Your task to perform on an android device: Find coffee shops on Maps Image 0: 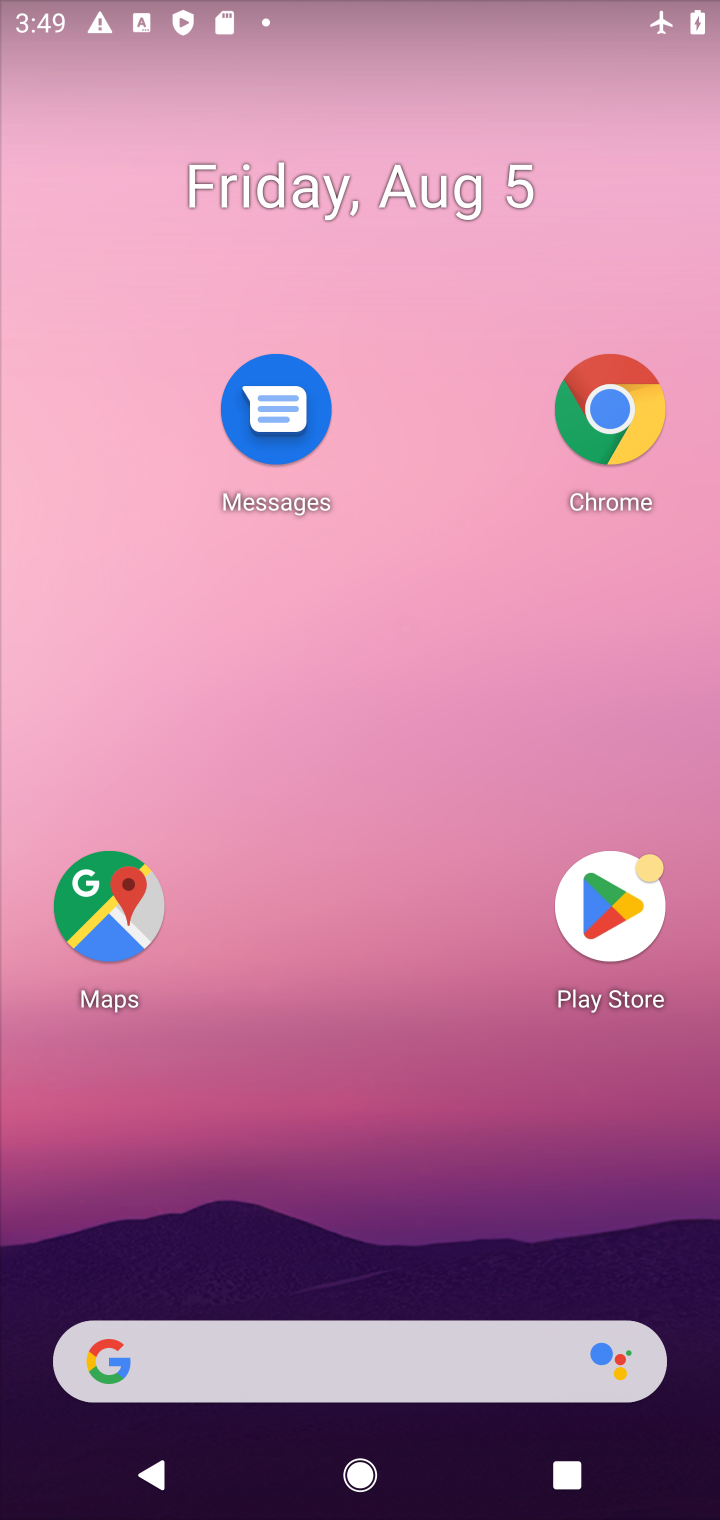
Step 0: click (152, 905)
Your task to perform on an android device: Find coffee shops on Maps Image 1: 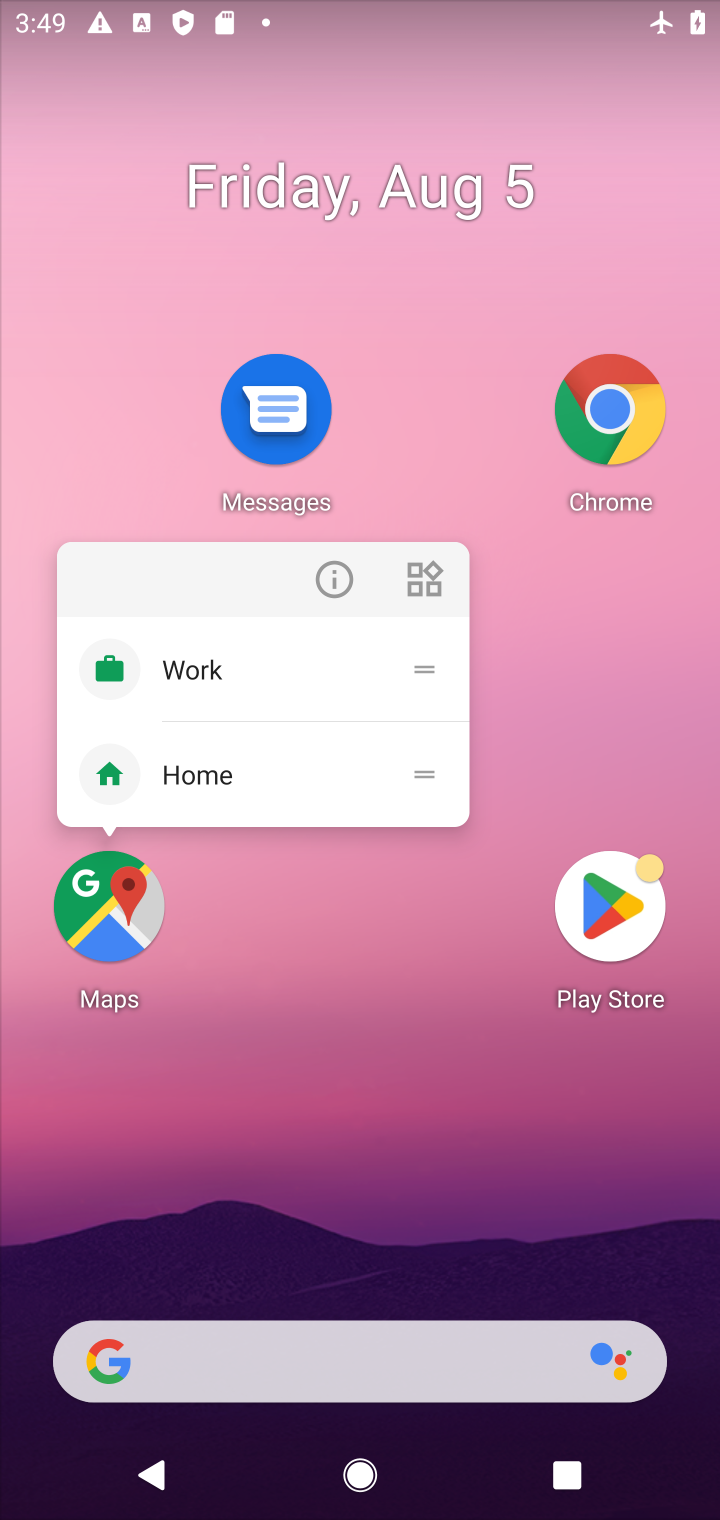
Step 1: click (147, 918)
Your task to perform on an android device: Find coffee shops on Maps Image 2: 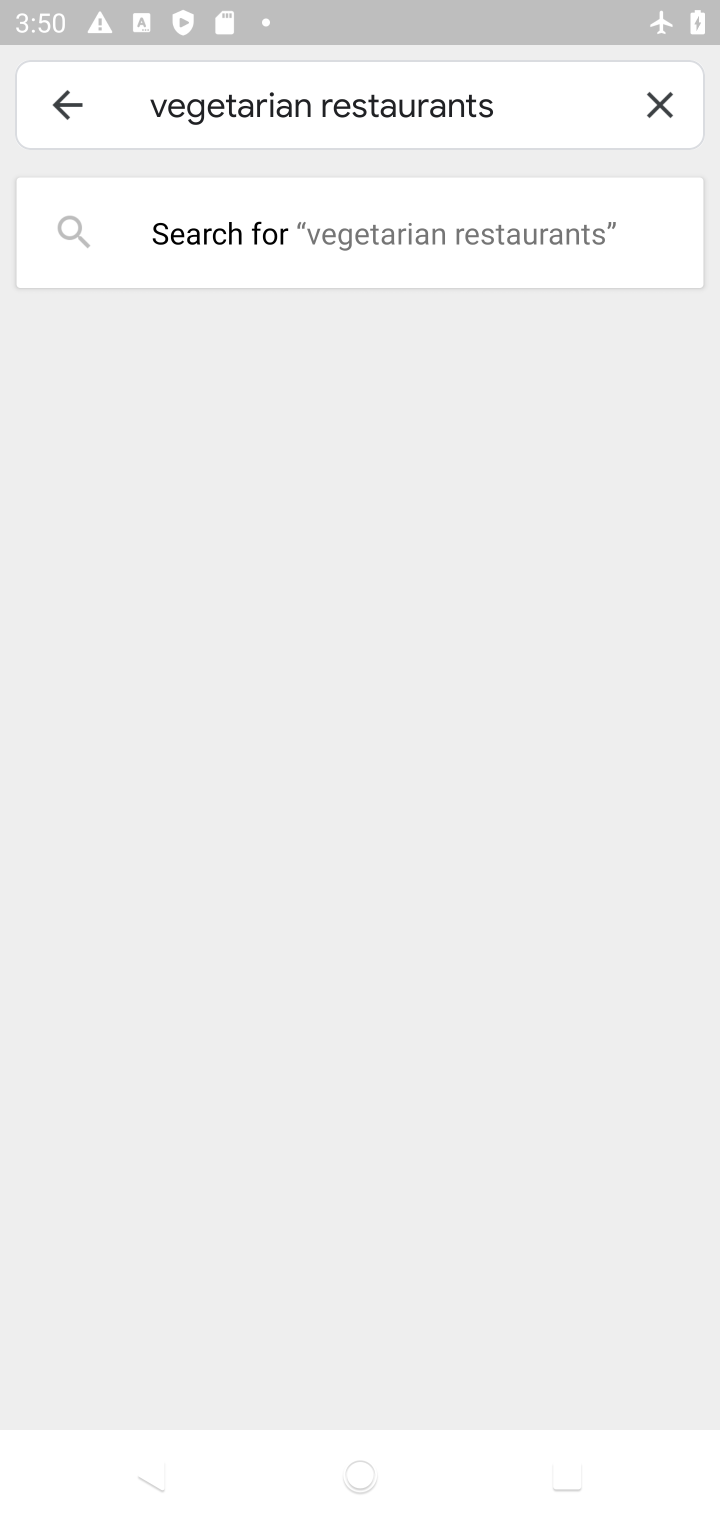
Step 2: click (645, 109)
Your task to perform on an android device: Find coffee shops on Maps Image 3: 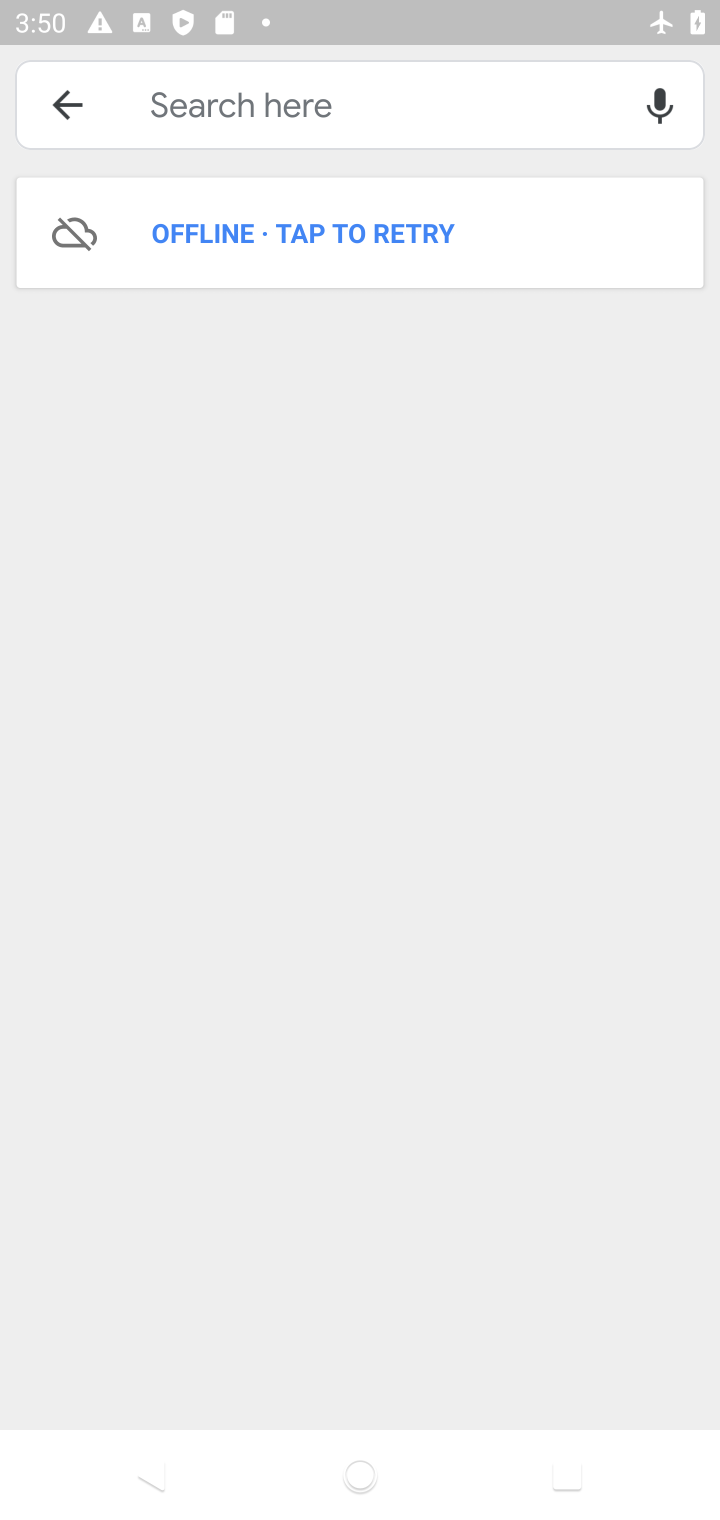
Step 3: click (425, 97)
Your task to perform on an android device: Find coffee shops on Maps Image 4: 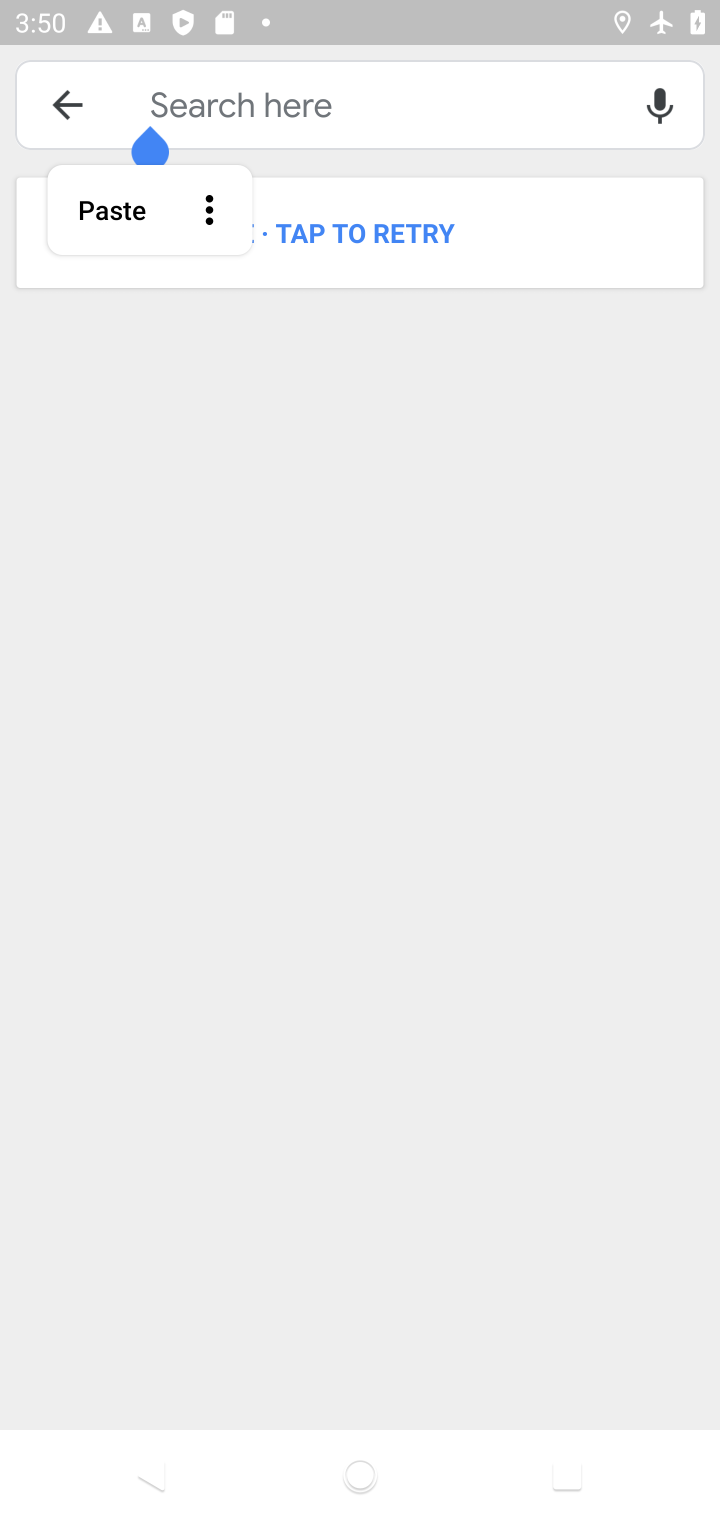
Step 4: type "coffee shops"
Your task to perform on an android device: Find coffee shops on Maps Image 5: 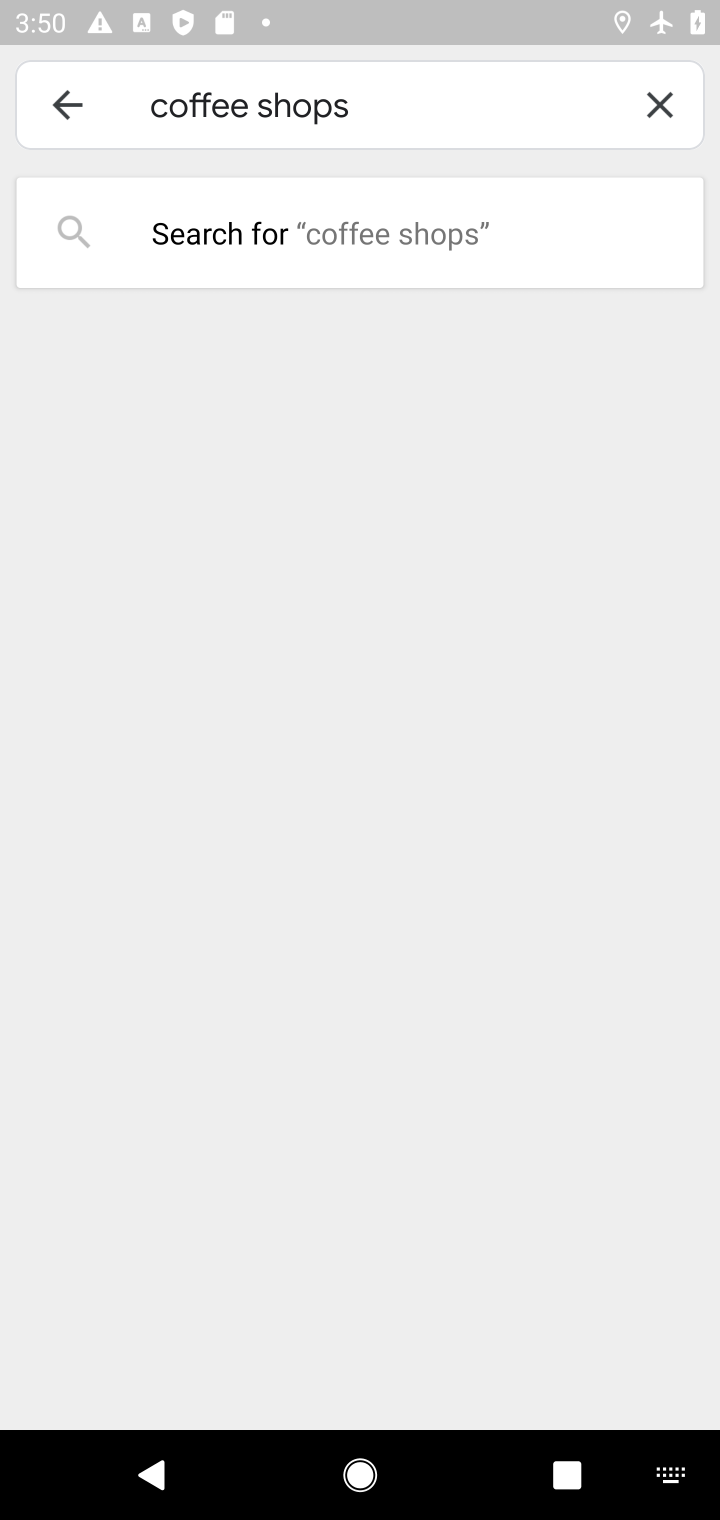
Step 5: task complete